Your task to perform on an android device: add a contact Image 0: 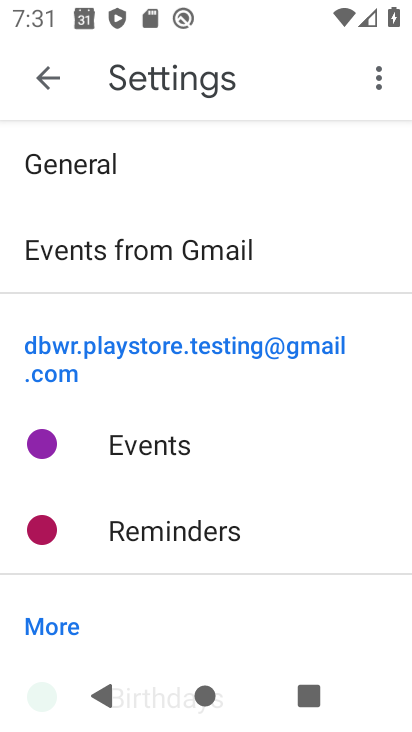
Step 0: press home button
Your task to perform on an android device: add a contact Image 1: 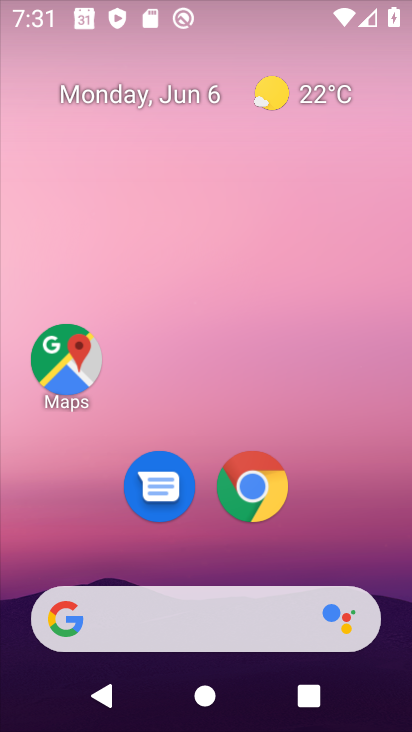
Step 1: drag from (395, 627) to (288, 81)
Your task to perform on an android device: add a contact Image 2: 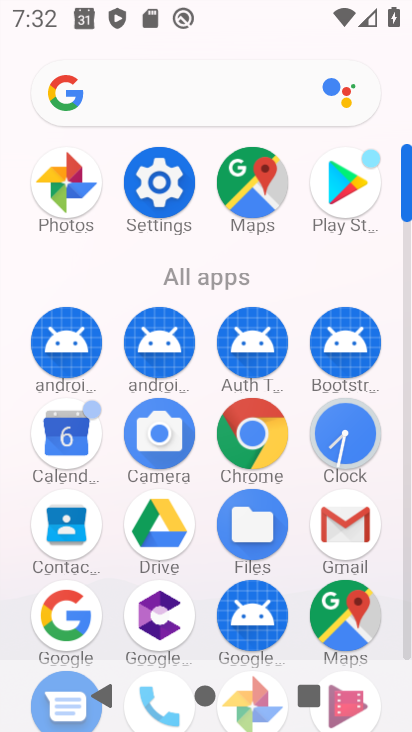
Step 2: click (66, 533)
Your task to perform on an android device: add a contact Image 3: 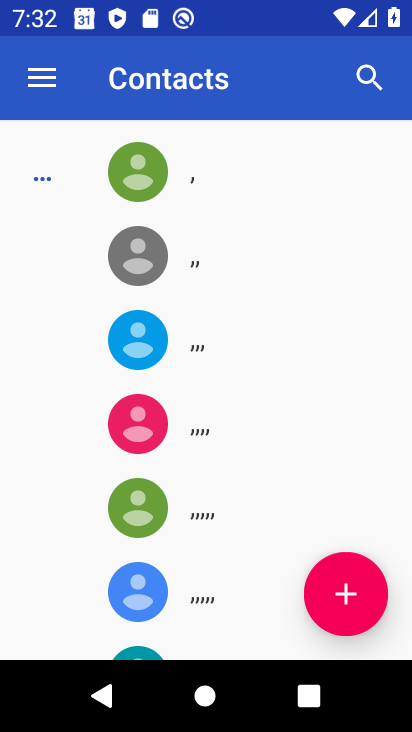
Step 3: click (341, 575)
Your task to perform on an android device: add a contact Image 4: 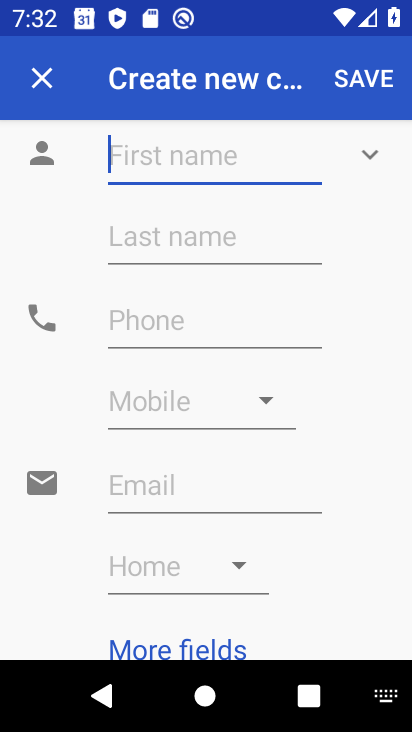
Step 4: type "babu"
Your task to perform on an android device: add a contact Image 5: 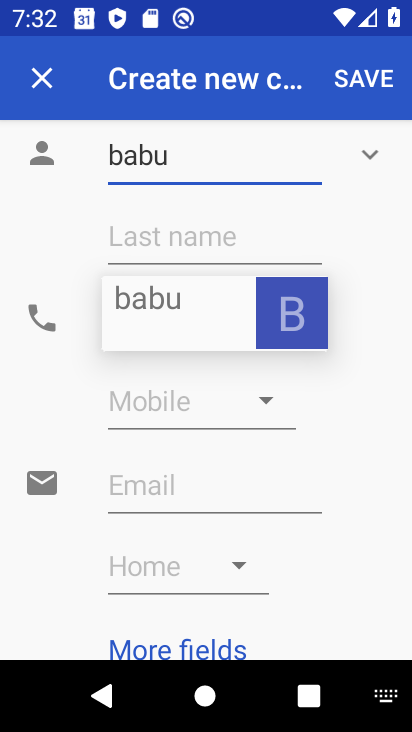
Step 5: click (377, 79)
Your task to perform on an android device: add a contact Image 6: 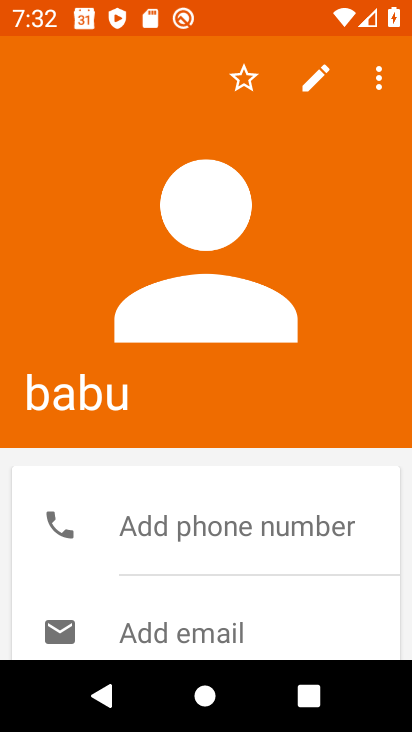
Step 6: task complete